Your task to perform on an android device: turn on sleep mode Image 0: 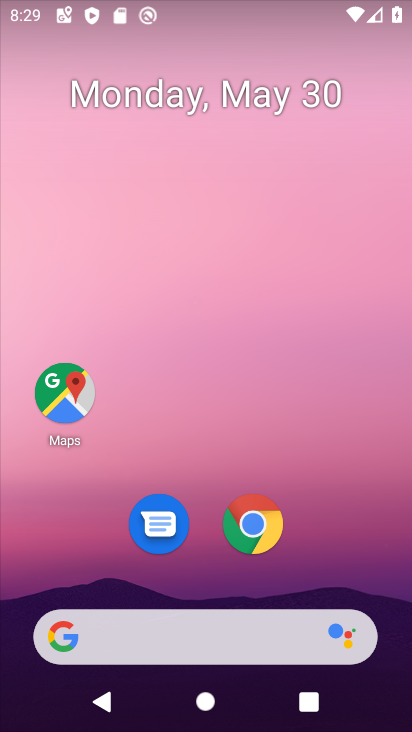
Step 0: drag from (259, 360) to (326, 9)
Your task to perform on an android device: turn on sleep mode Image 1: 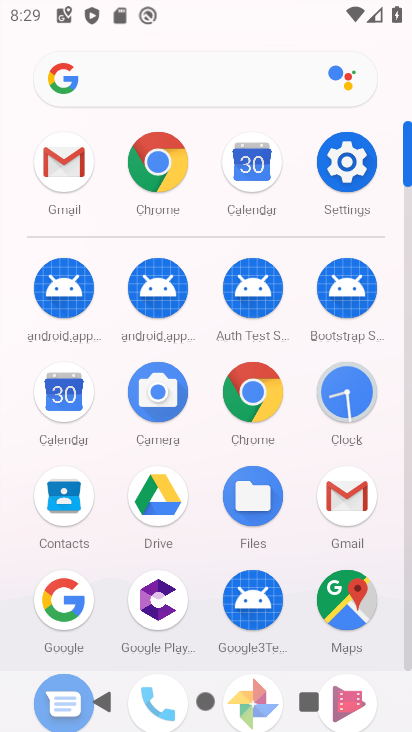
Step 1: click (351, 169)
Your task to perform on an android device: turn on sleep mode Image 2: 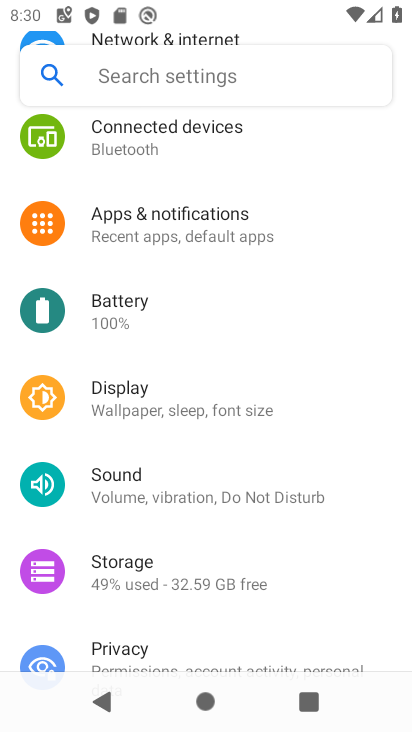
Step 2: click (175, 395)
Your task to perform on an android device: turn on sleep mode Image 3: 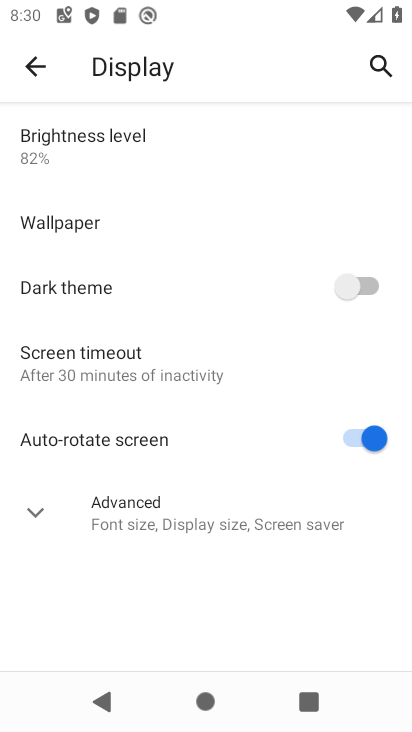
Step 3: task complete